Your task to perform on an android device: When is my next appointment? Image 0: 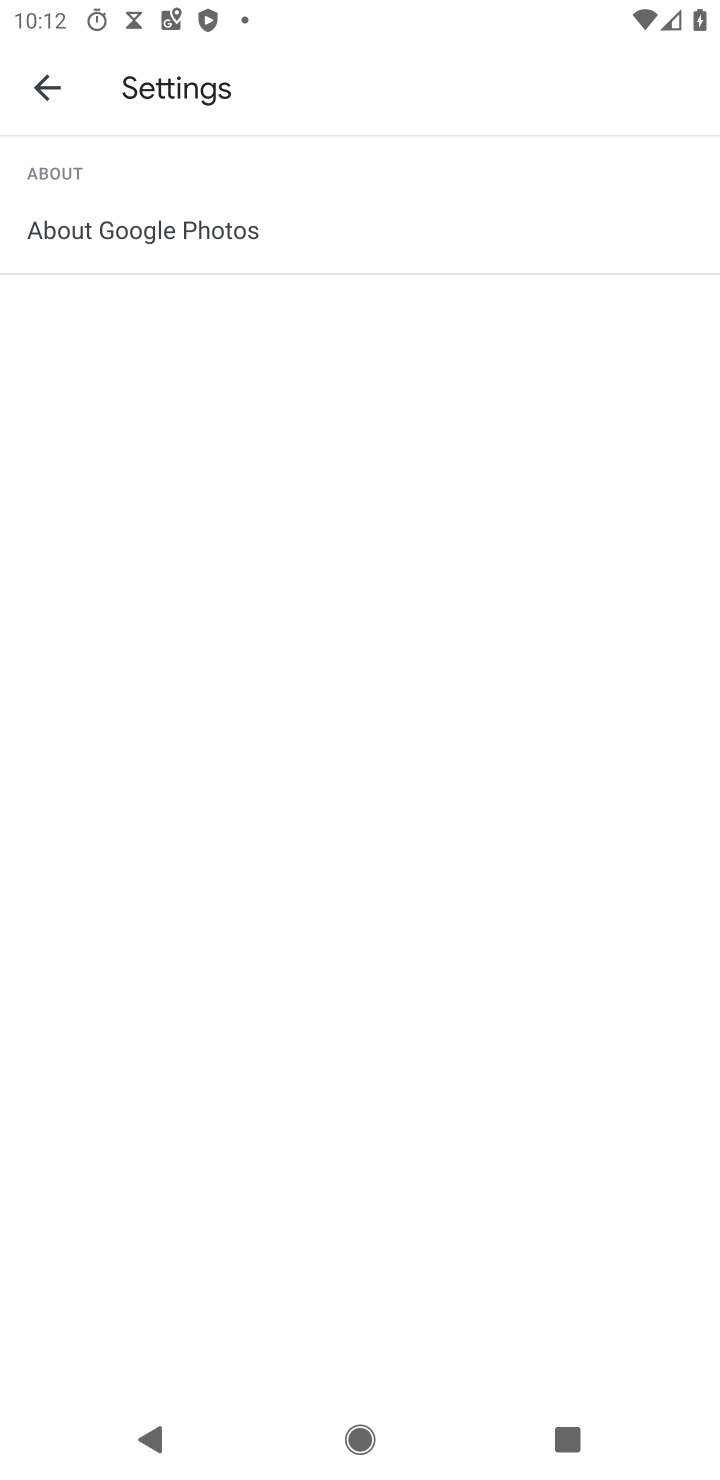
Step 0: press home button
Your task to perform on an android device: When is my next appointment? Image 1: 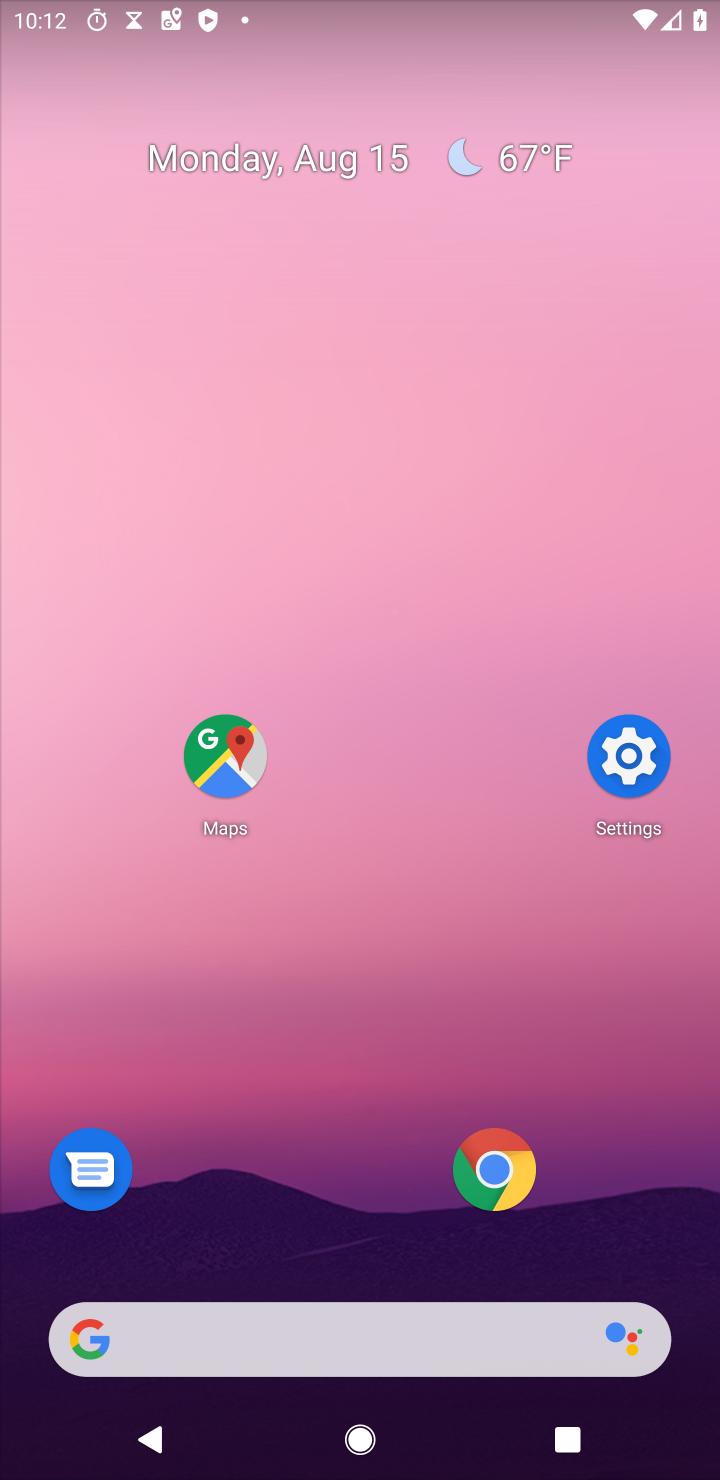
Step 1: drag from (415, 1113) to (545, 0)
Your task to perform on an android device: When is my next appointment? Image 2: 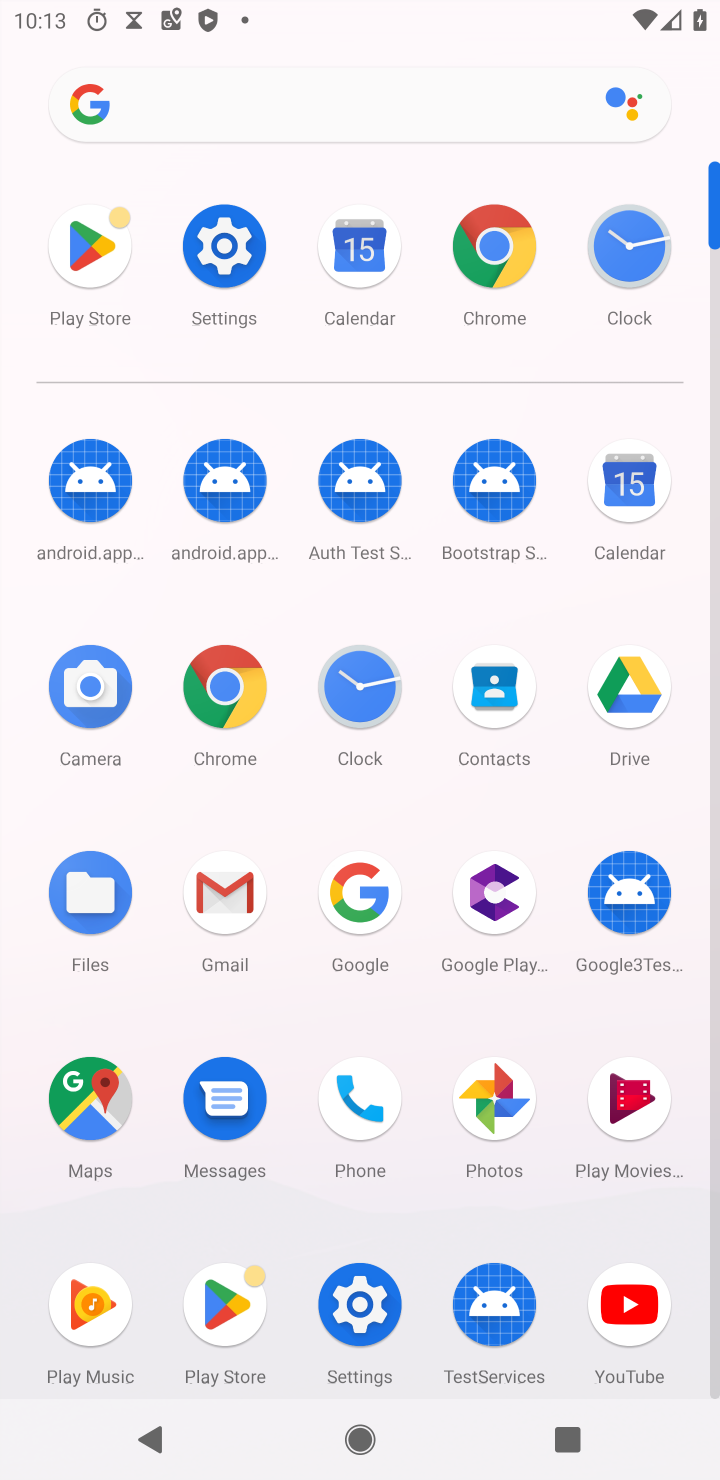
Step 2: click (366, 262)
Your task to perform on an android device: When is my next appointment? Image 3: 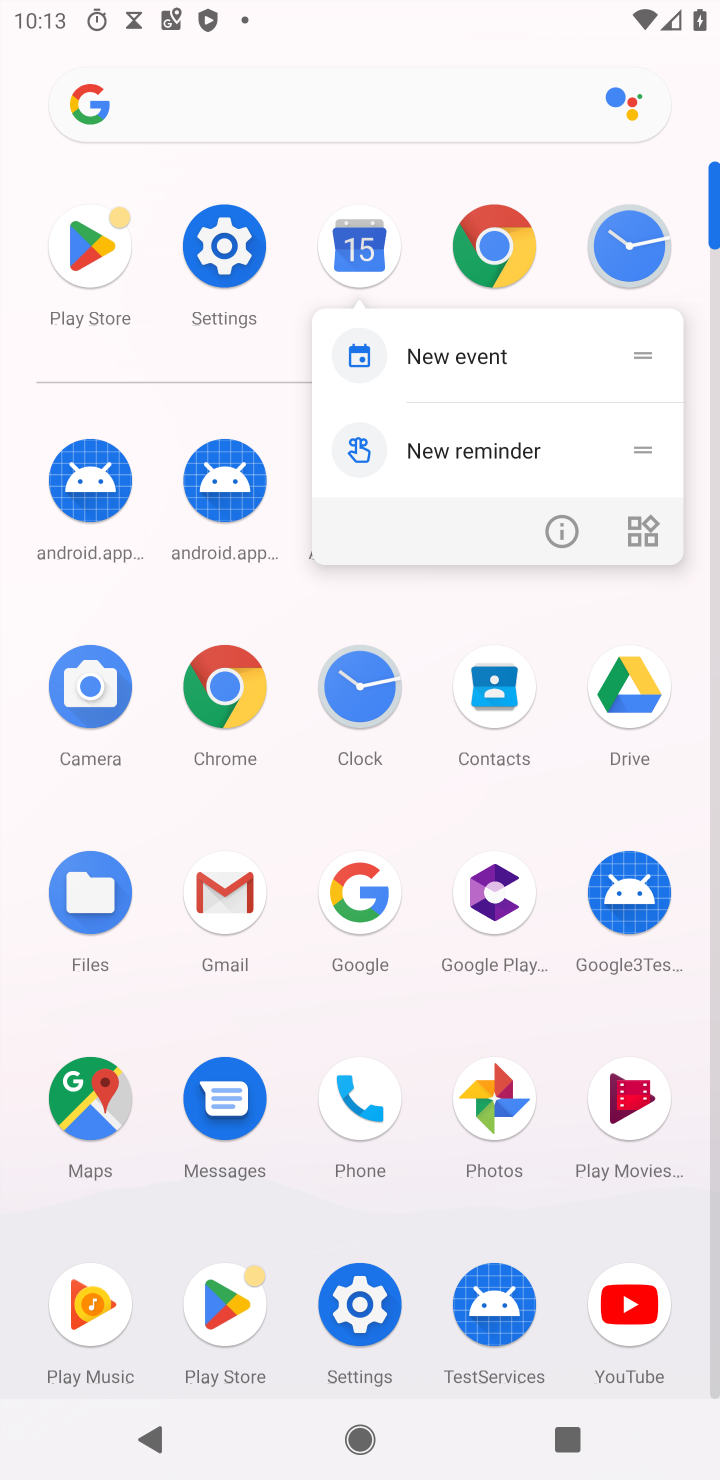
Step 3: click (357, 245)
Your task to perform on an android device: When is my next appointment? Image 4: 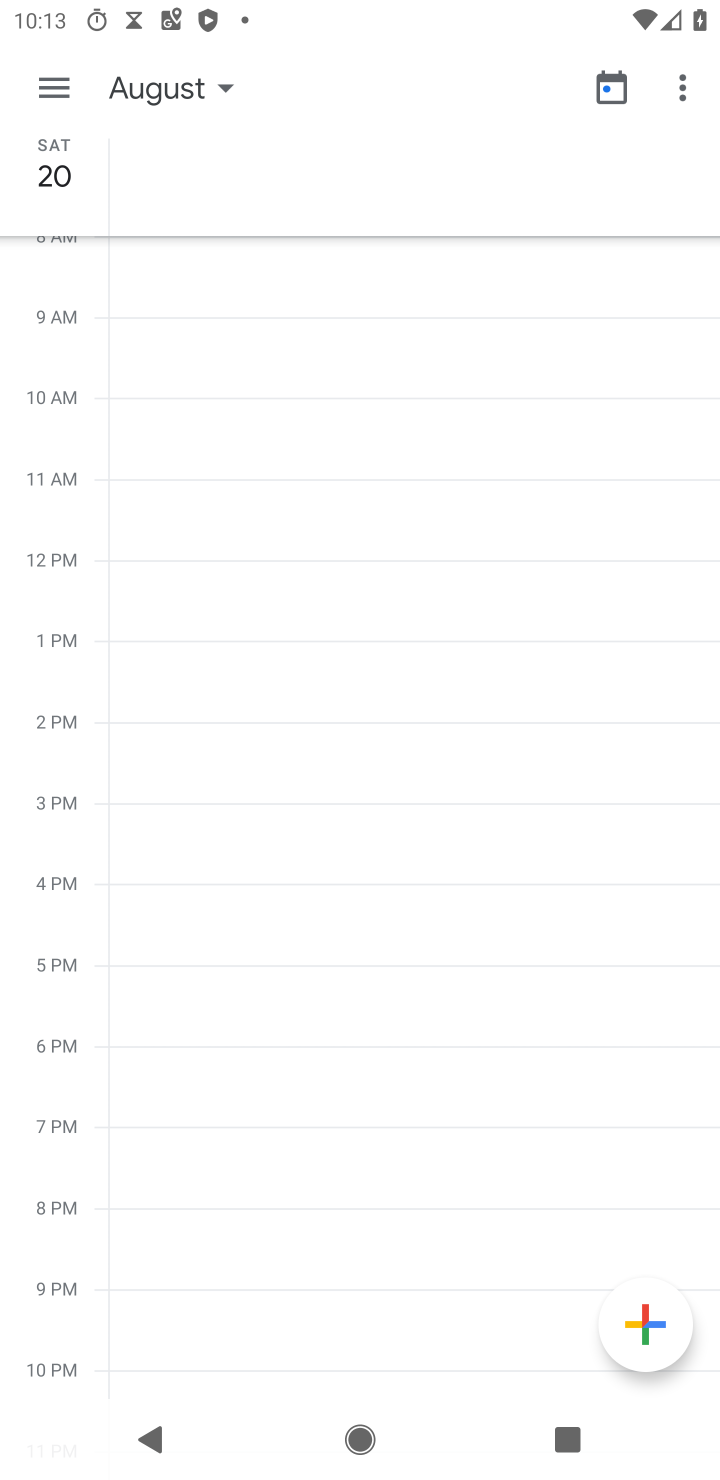
Step 4: click (165, 89)
Your task to perform on an android device: When is my next appointment? Image 5: 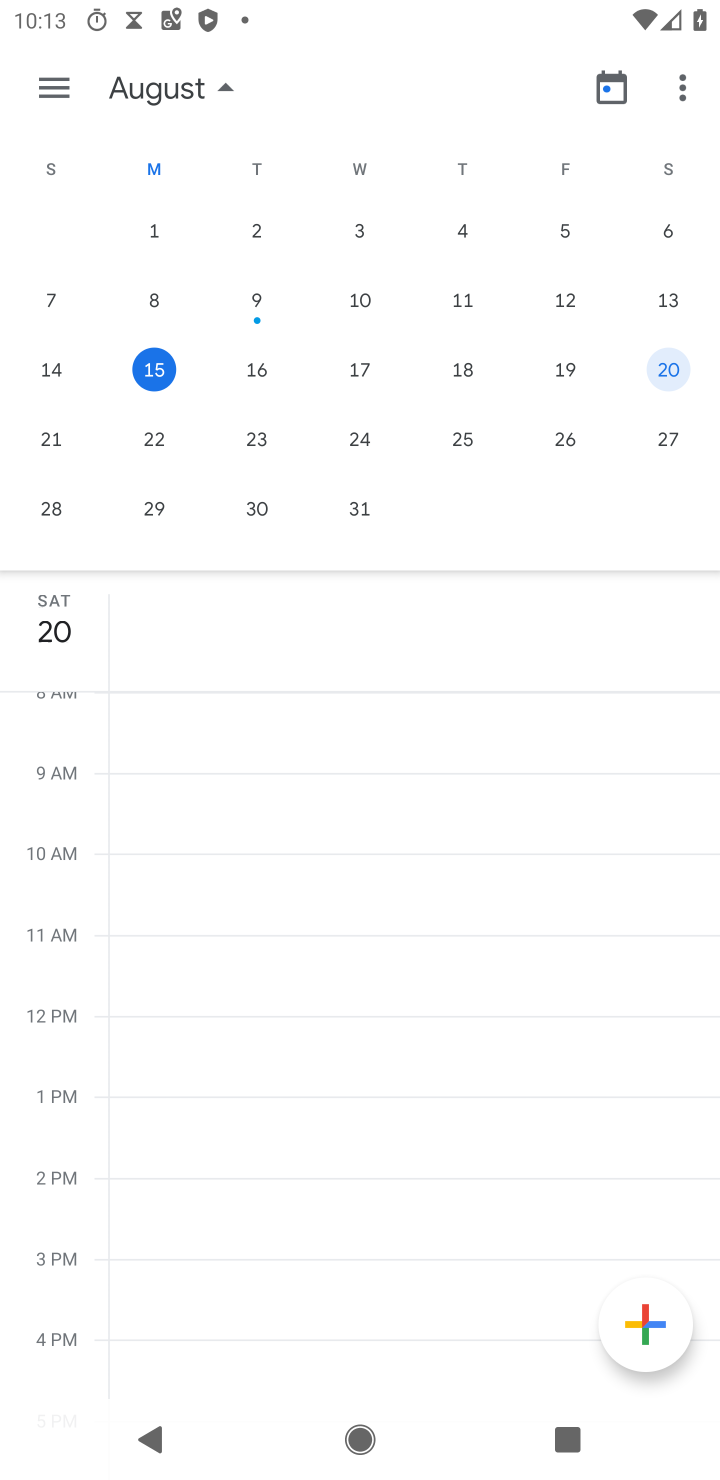
Step 5: click (164, 362)
Your task to perform on an android device: When is my next appointment? Image 6: 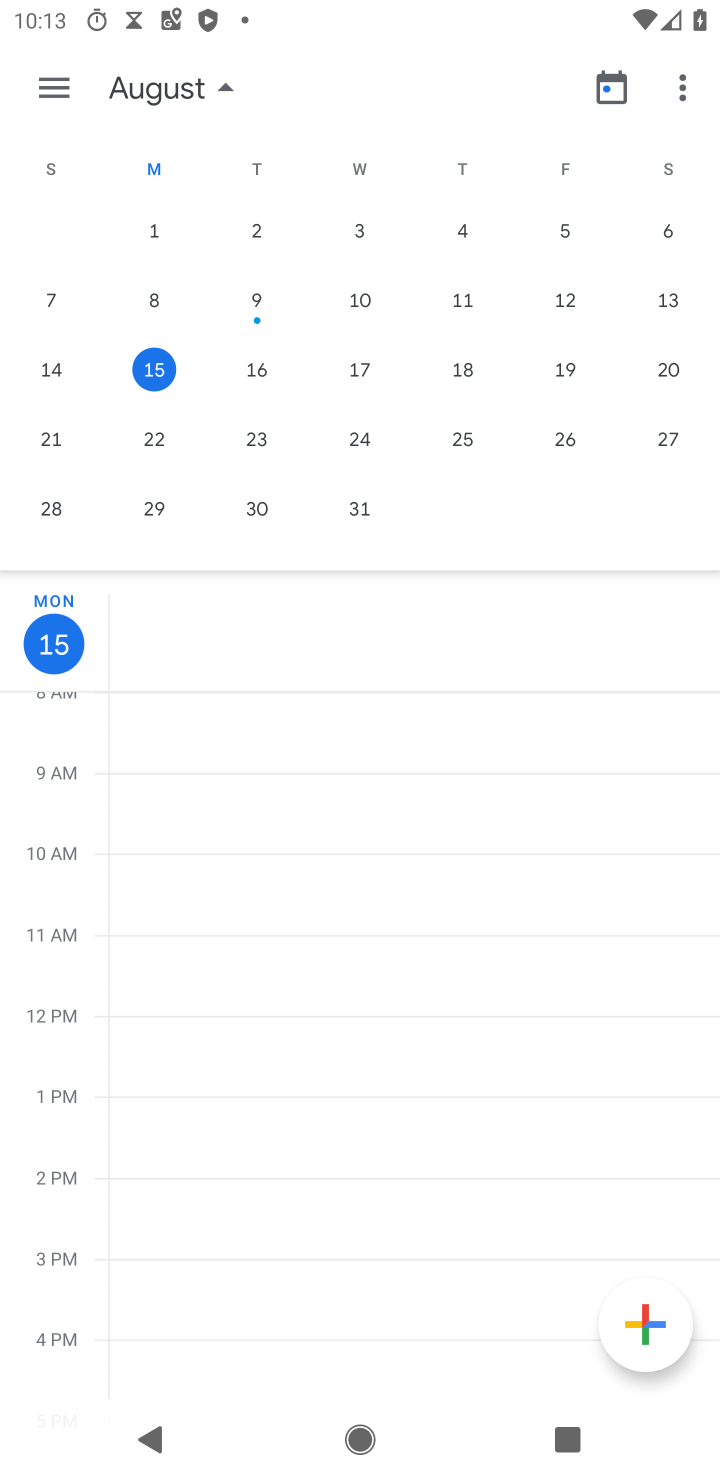
Step 6: click (70, 101)
Your task to perform on an android device: When is my next appointment? Image 7: 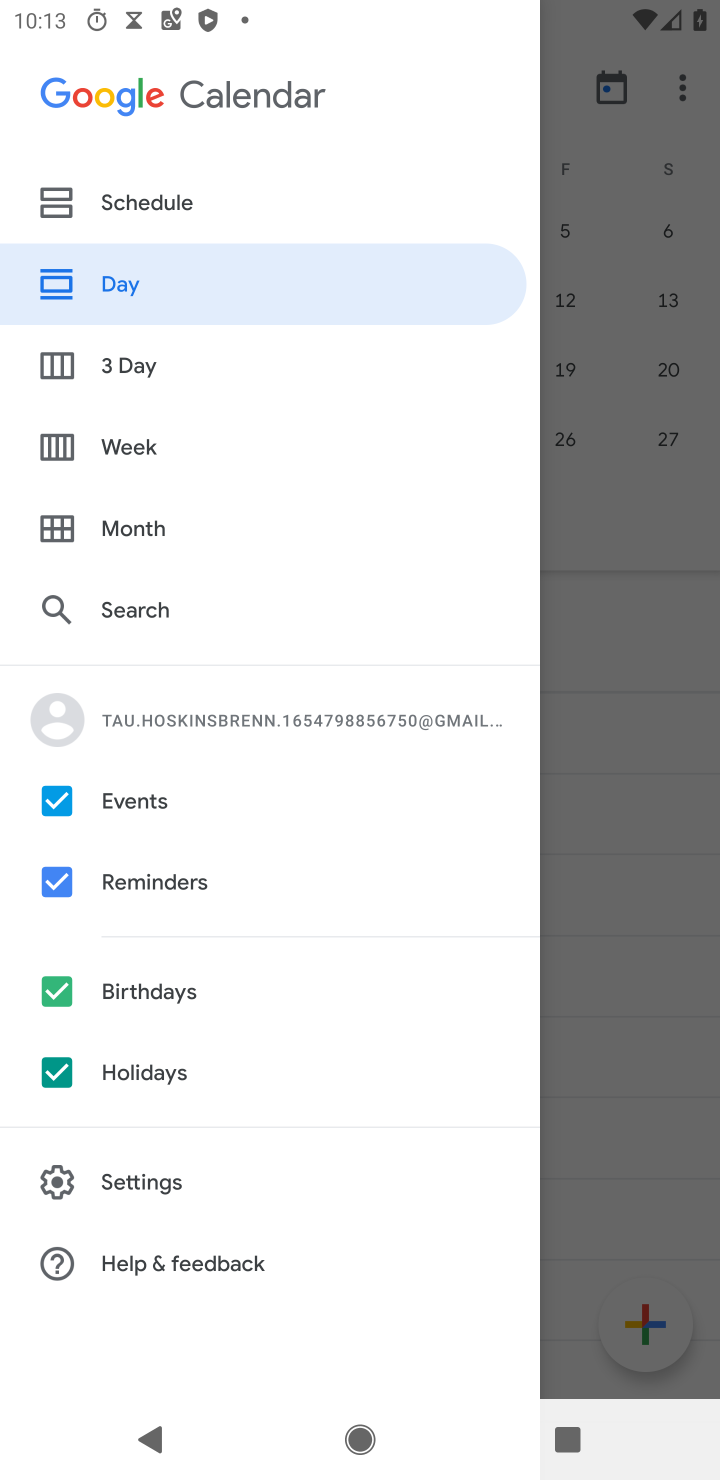
Step 7: click (145, 441)
Your task to perform on an android device: When is my next appointment? Image 8: 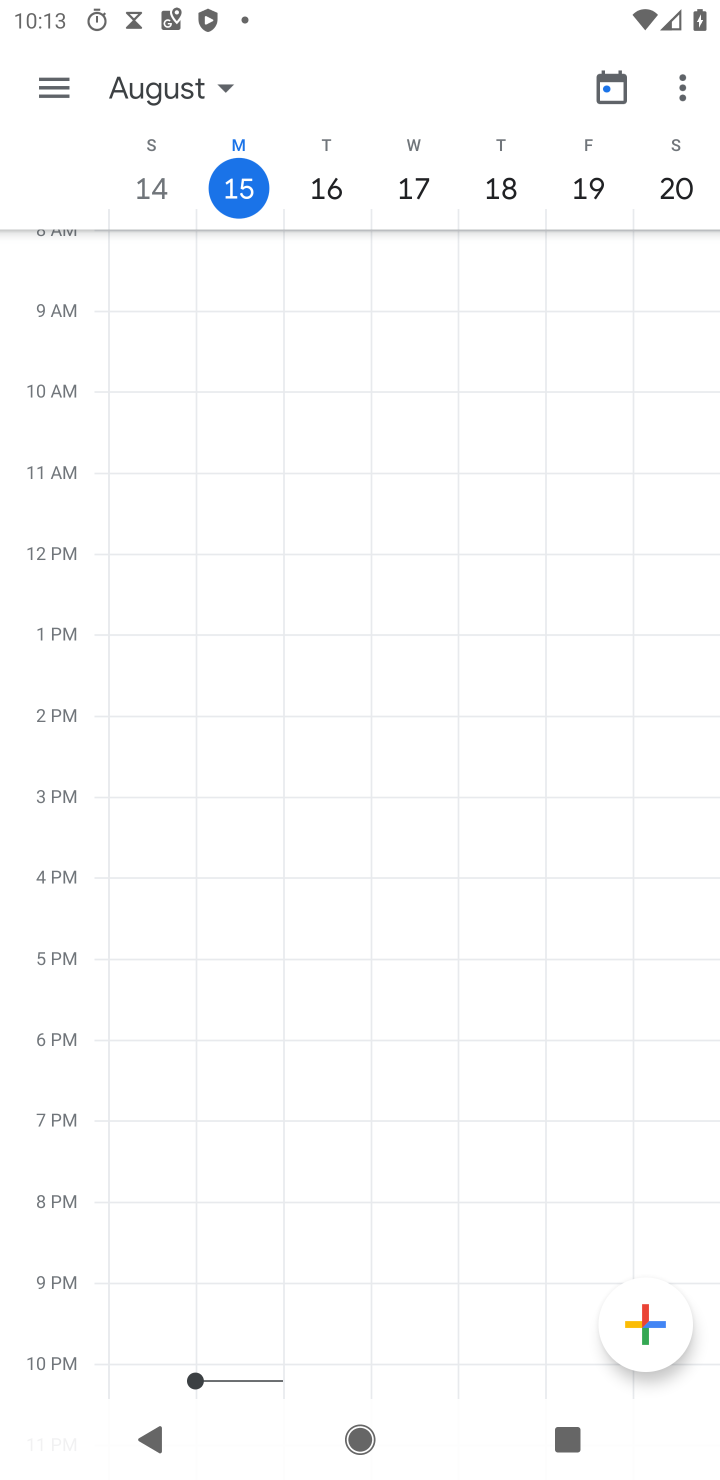
Step 8: click (45, 82)
Your task to perform on an android device: When is my next appointment? Image 9: 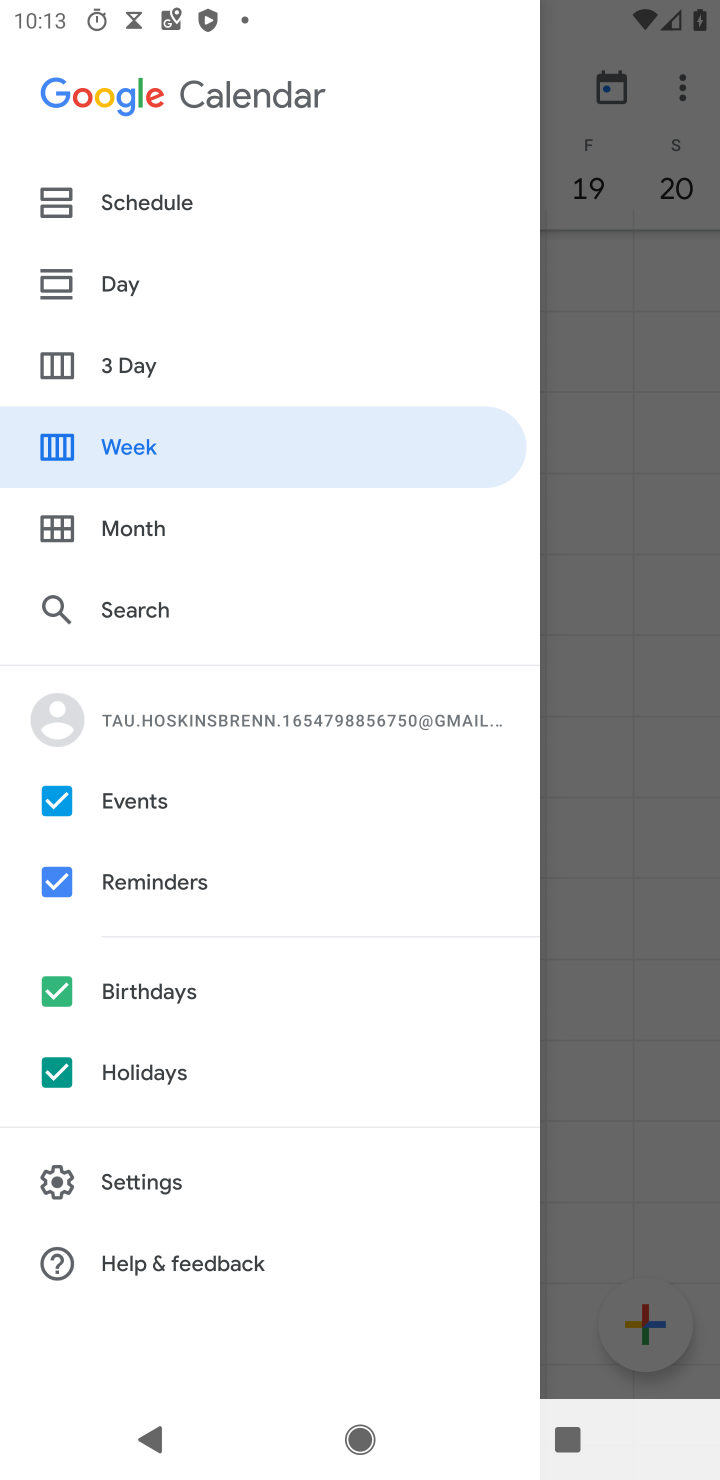
Step 9: click (157, 454)
Your task to perform on an android device: When is my next appointment? Image 10: 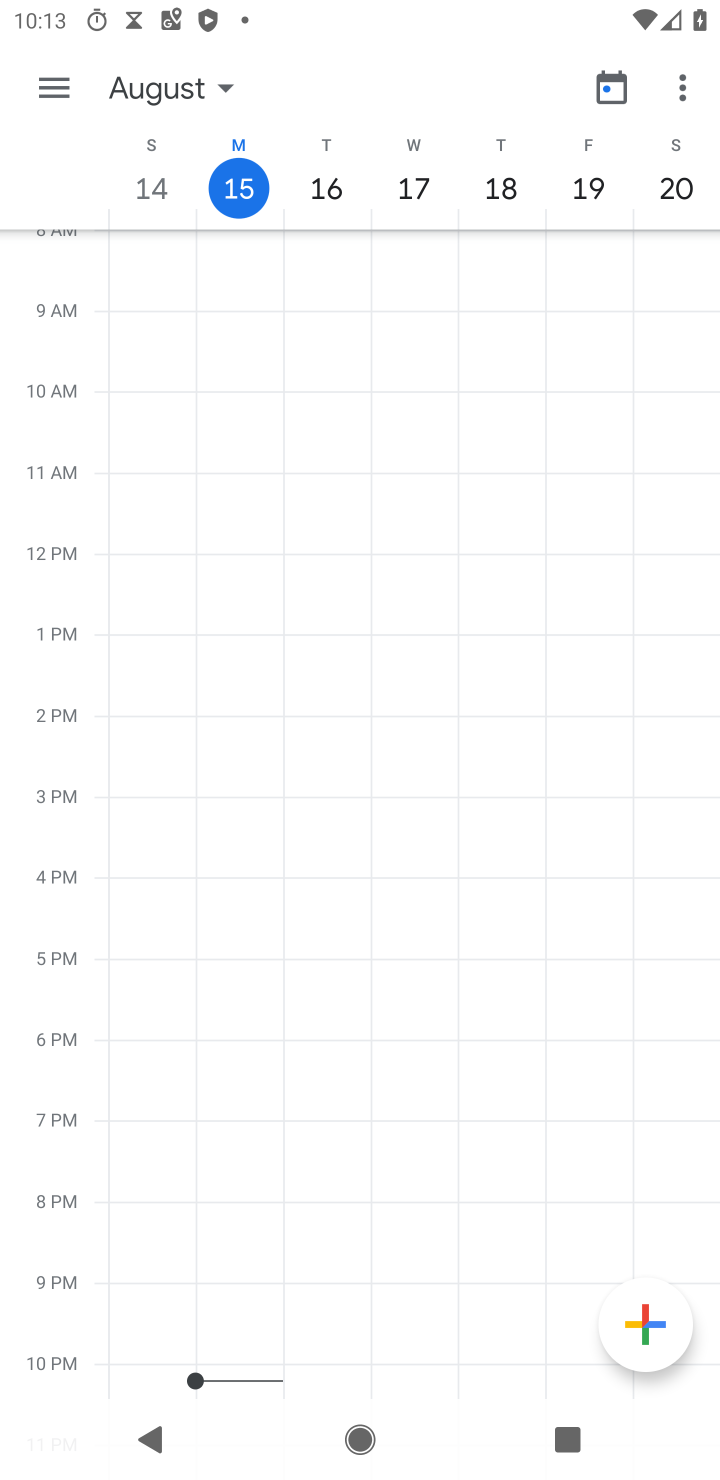
Step 10: click (56, 86)
Your task to perform on an android device: When is my next appointment? Image 11: 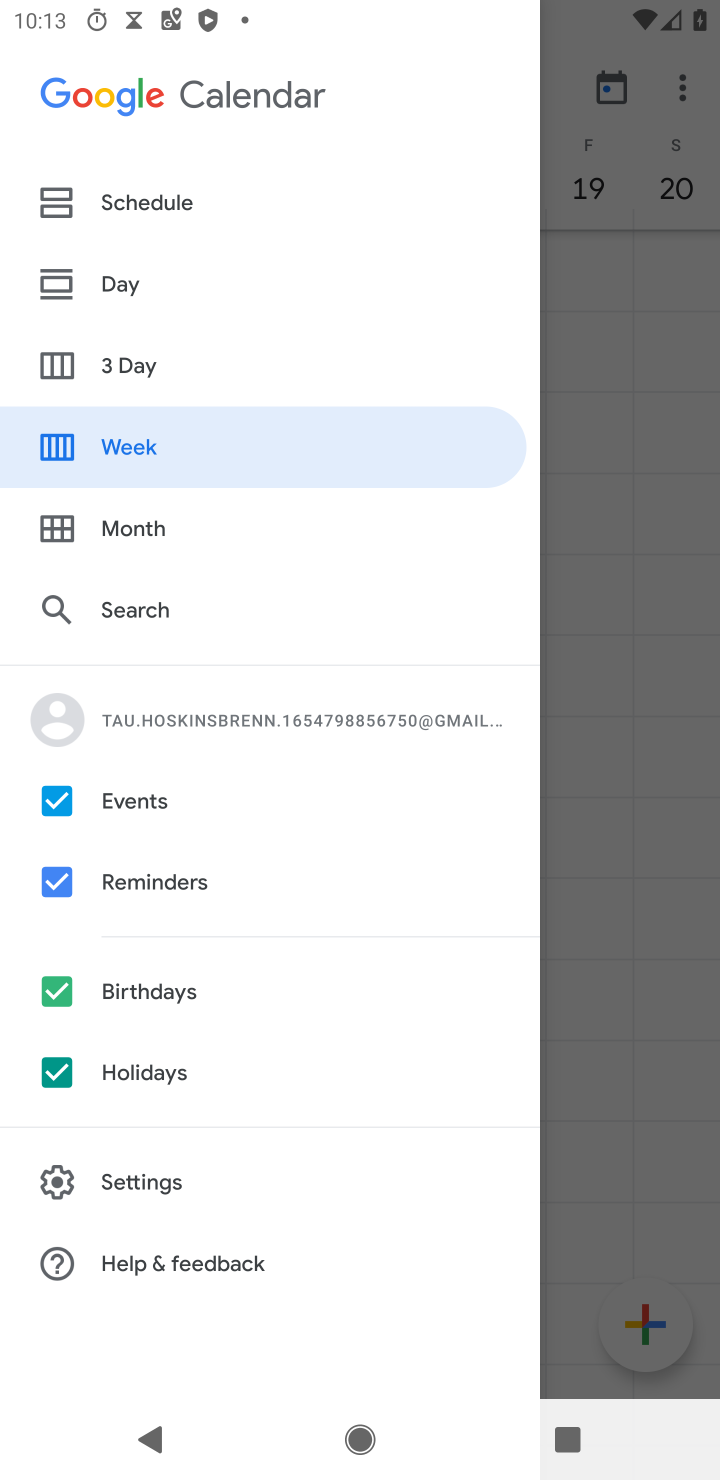
Step 11: click (194, 190)
Your task to perform on an android device: When is my next appointment? Image 12: 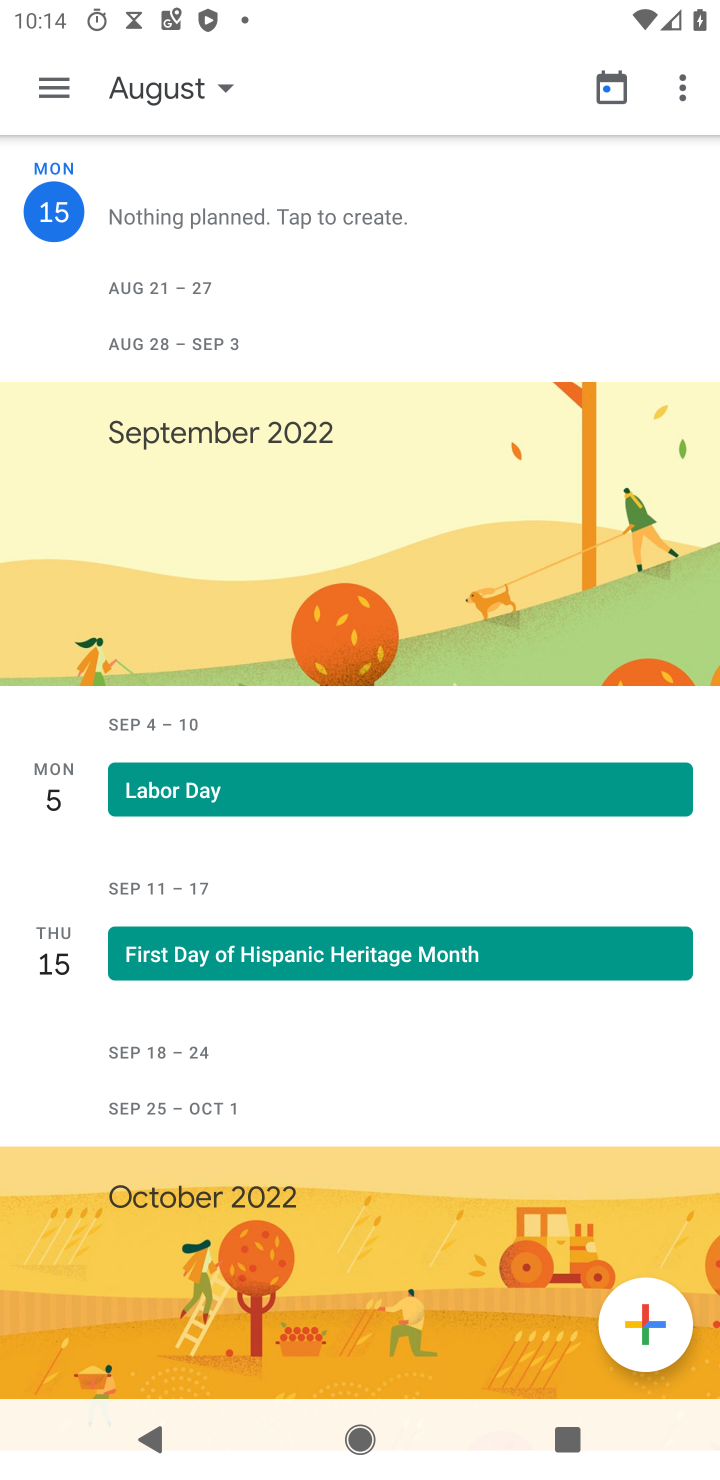
Step 12: task complete